Your task to perform on an android device: delete location history Image 0: 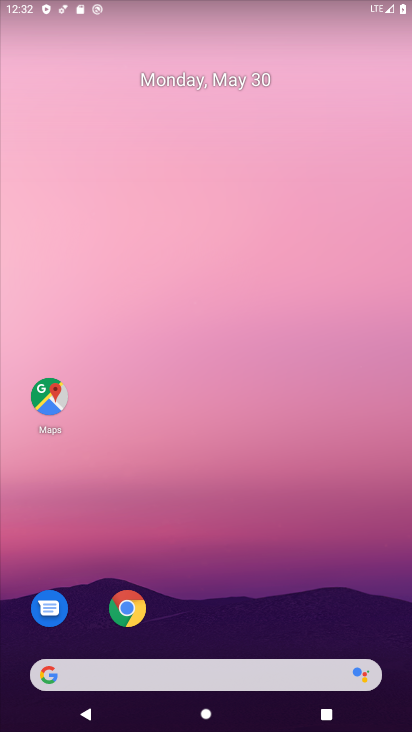
Step 0: drag from (223, 641) to (264, 29)
Your task to perform on an android device: delete location history Image 1: 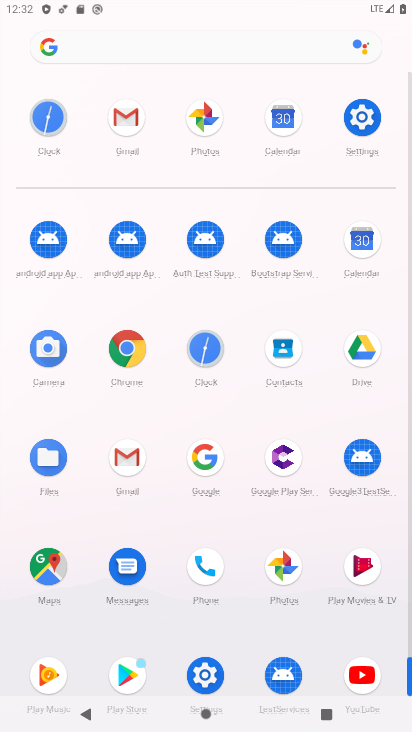
Step 1: click (52, 558)
Your task to perform on an android device: delete location history Image 2: 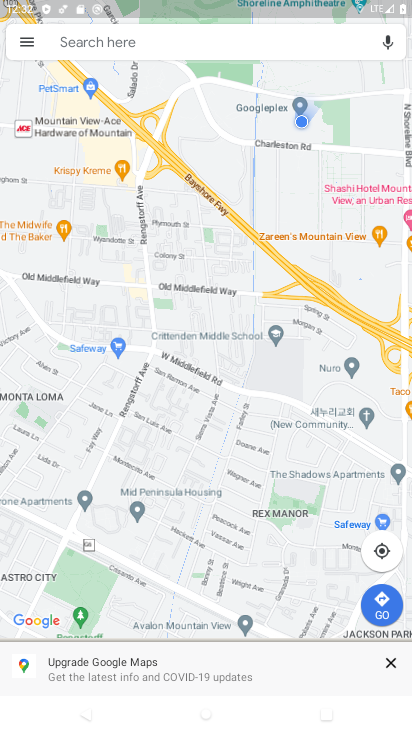
Step 2: click (10, 50)
Your task to perform on an android device: delete location history Image 3: 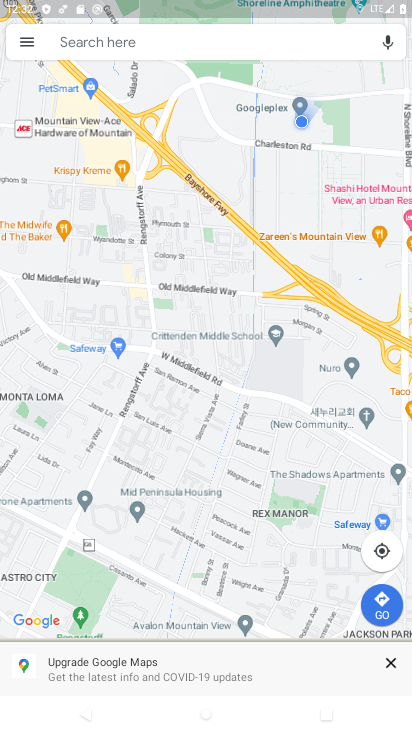
Step 3: click (13, 47)
Your task to perform on an android device: delete location history Image 4: 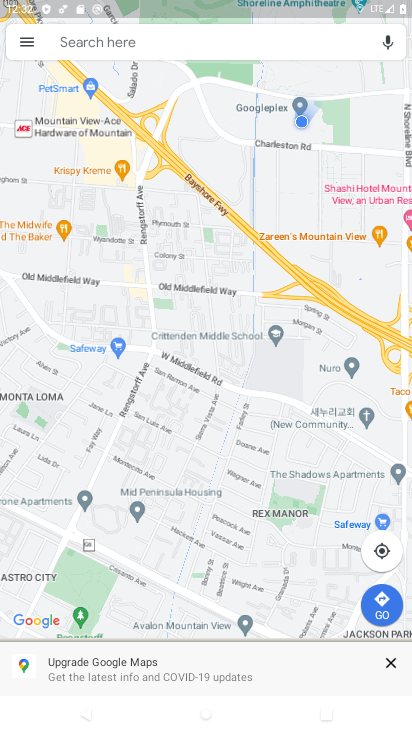
Step 4: click (35, 49)
Your task to perform on an android device: delete location history Image 5: 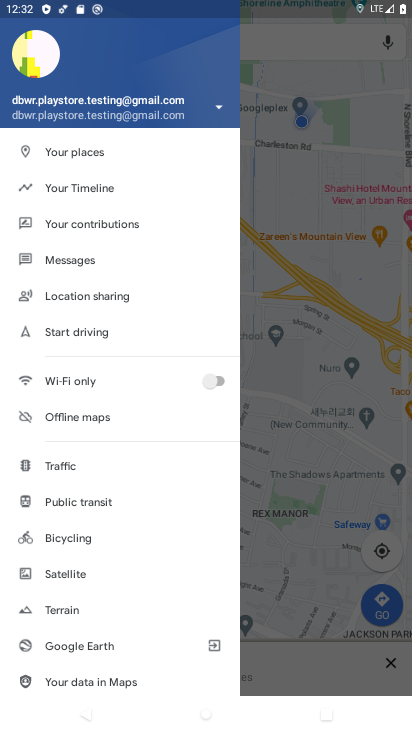
Step 5: click (102, 186)
Your task to perform on an android device: delete location history Image 6: 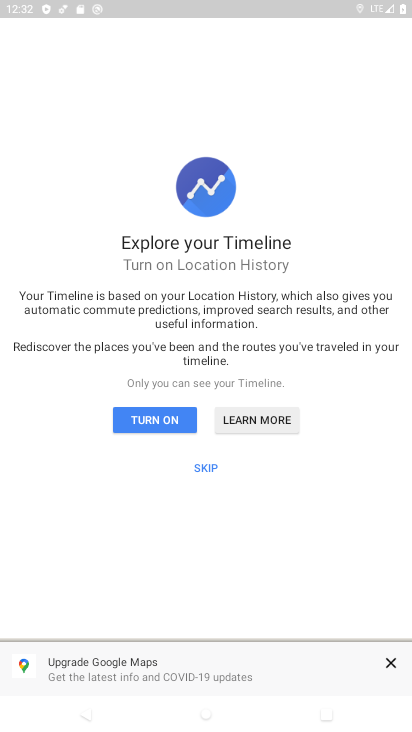
Step 6: click (213, 458)
Your task to perform on an android device: delete location history Image 7: 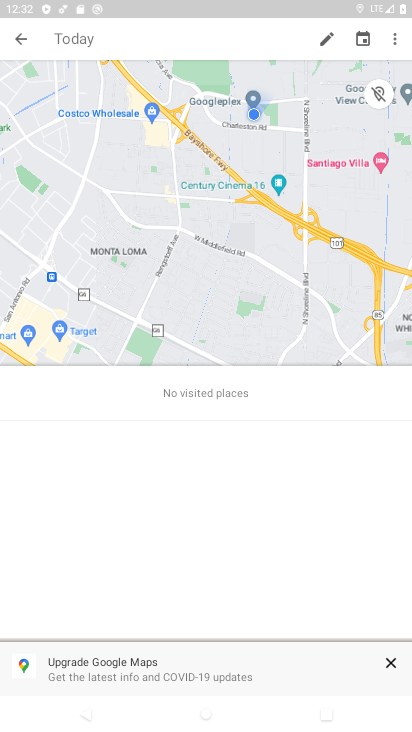
Step 7: click (390, 657)
Your task to perform on an android device: delete location history Image 8: 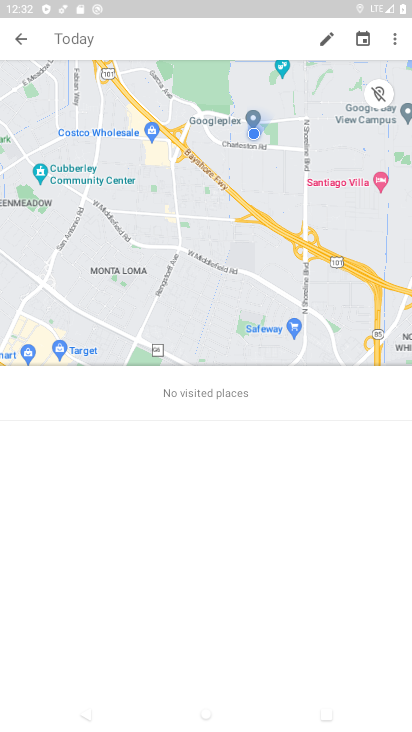
Step 8: click (387, 54)
Your task to perform on an android device: delete location history Image 9: 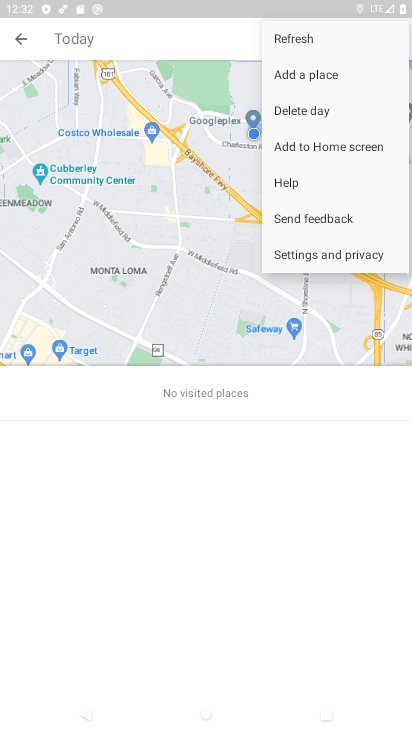
Step 9: click (326, 259)
Your task to perform on an android device: delete location history Image 10: 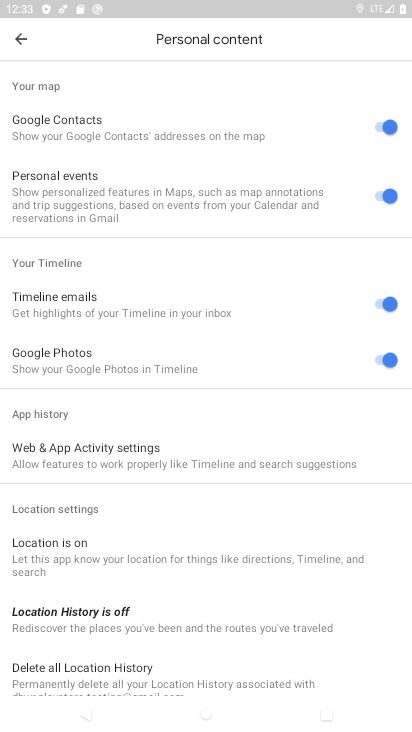
Step 10: drag from (113, 601) to (121, 462)
Your task to perform on an android device: delete location history Image 11: 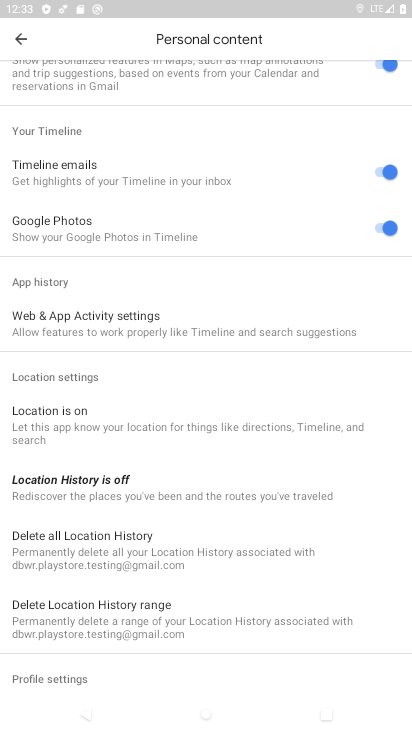
Step 11: click (103, 547)
Your task to perform on an android device: delete location history Image 12: 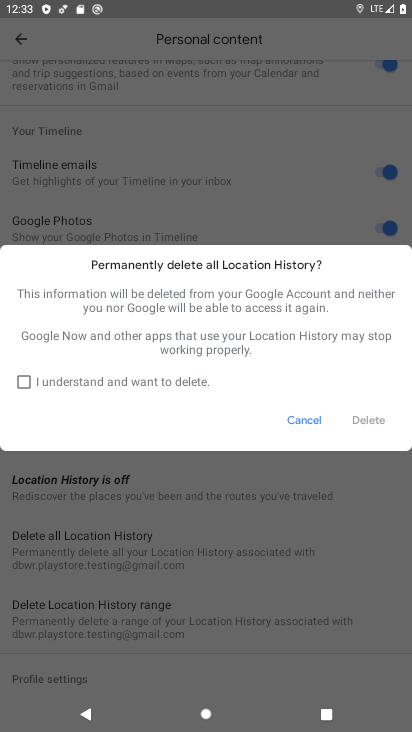
Step 12: click (150, 372)
Your task to perform on an android device: delete location history Image 13: 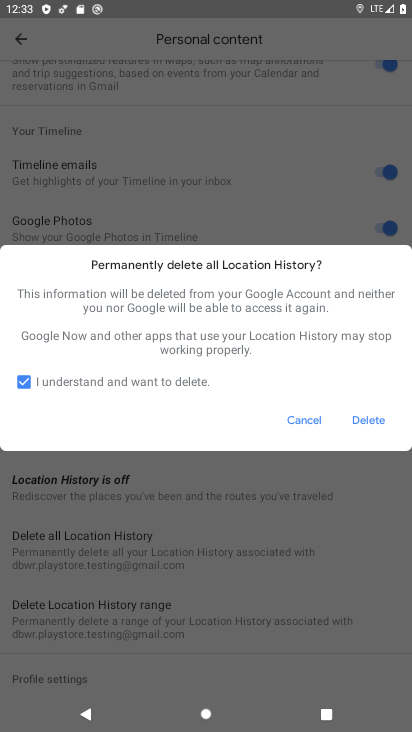
Step 13: click (384, 419)
Your task to perform on an android device: delete location history Image 14: 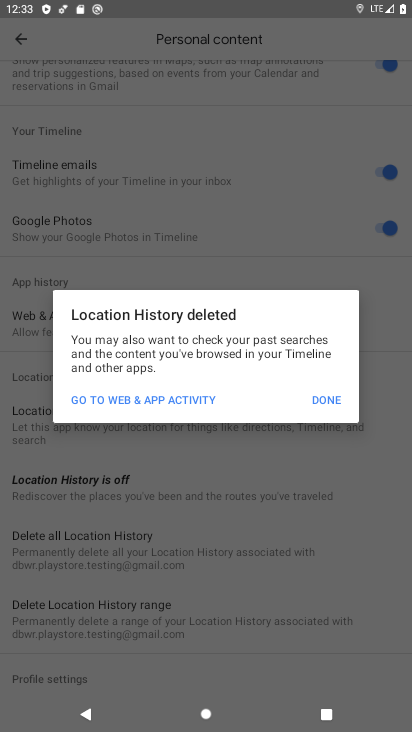
Step 14: click (318, 396)
Your task to perform on an android device: delete location history Image 15: 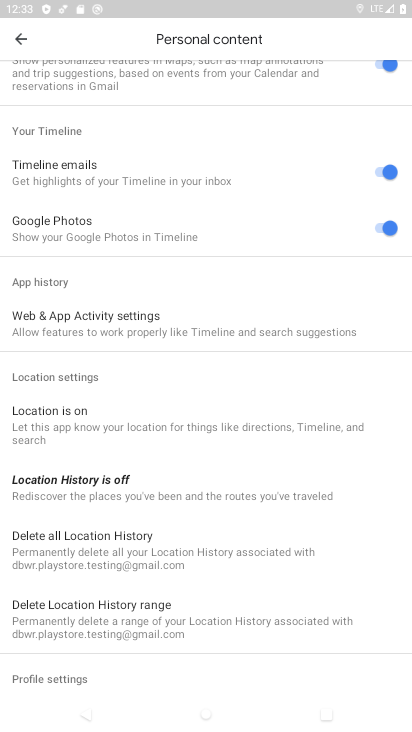
Step 15: task complete